Your task to perform on an android device: Open the stopwatch Image 0: 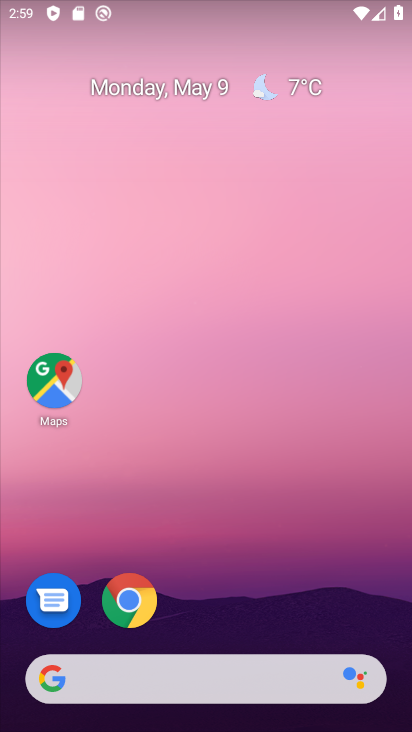
Step 0: drag from (276, 556) to (189, 0)
Your task to perform on an android device: Open the stopwatch Image 1: 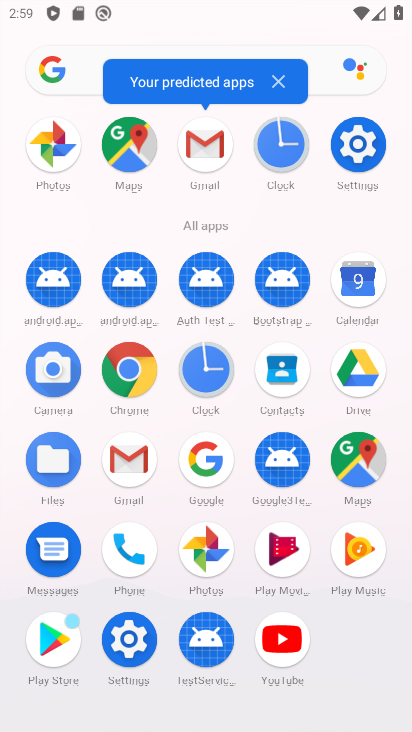
Step 1: click (203, 365)
Your task to perform on an android device: Open the stopwatch Image 2: 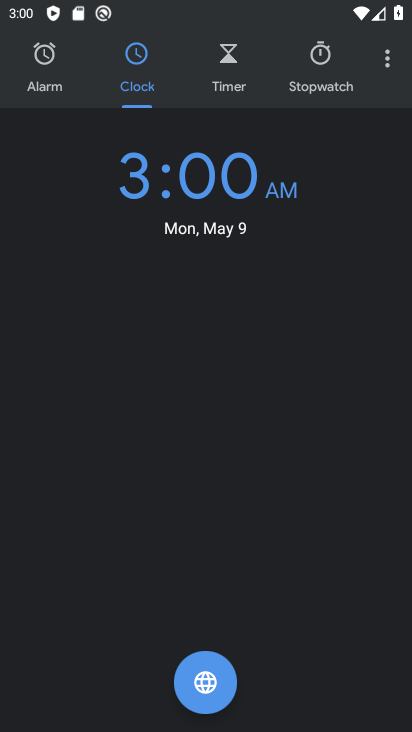
Step 2: drag from (383, 63) to (349, 113)
Your task to perform on an android device: Open the stopwatch Image 3: 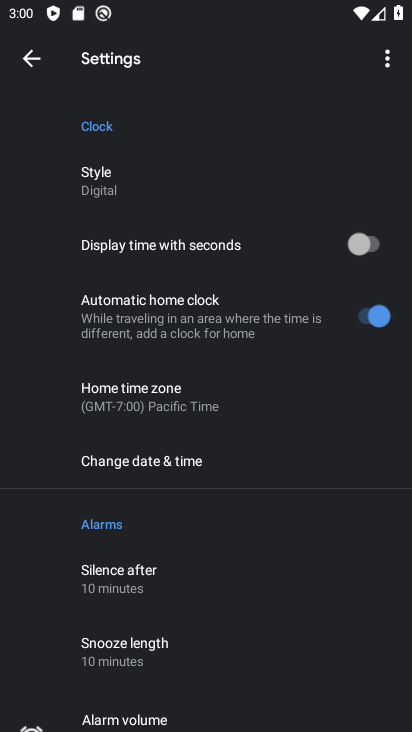
Step 3: click (34, 56)
Your task to perform on an android device: Open the stopwatch Image 4: 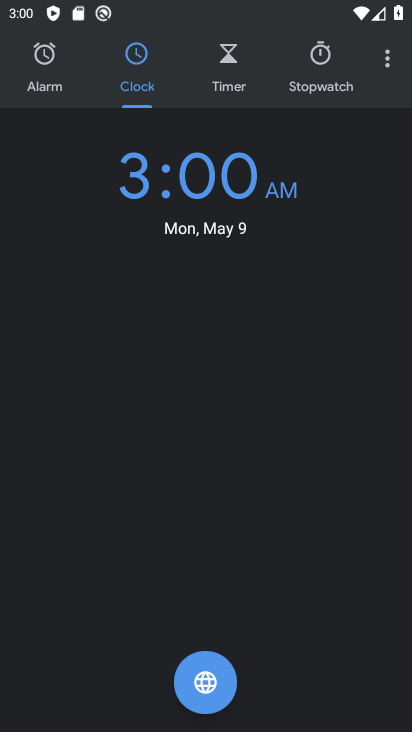
Step 4: click (297, 82)
Your task to perform on an android device: Open the stopwatch Image 5: 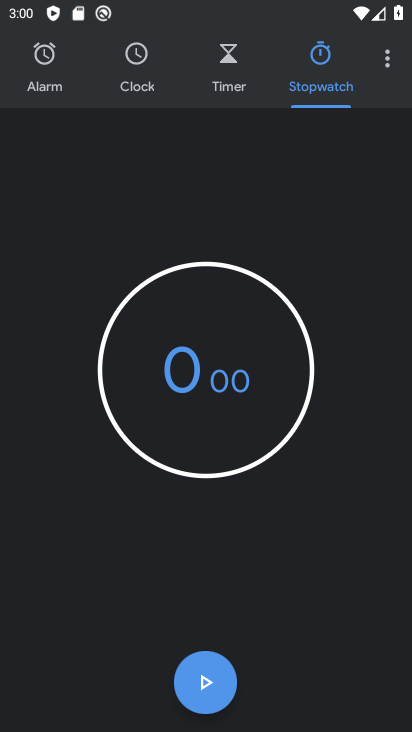
Step 5: task complete